Your task to perform on an android device: change your default location settings in chrome Image 0: 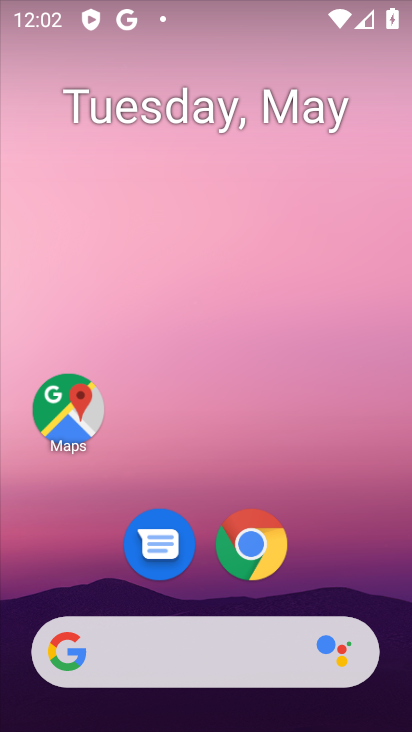
Step 0: click (241, 571)
Your task to perform on an android device: change your default location settings in chrome Image 1: 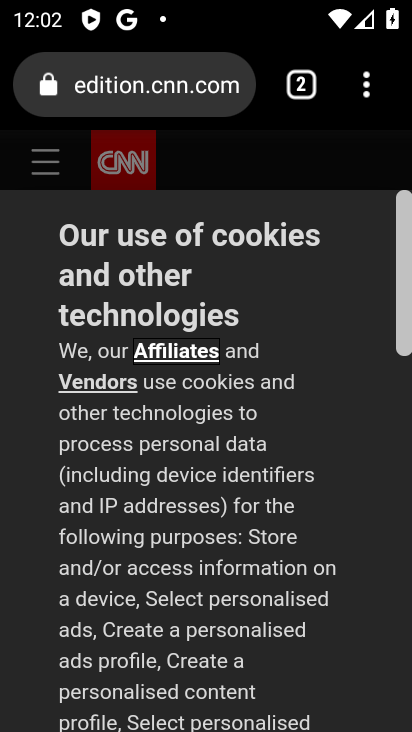
Step 1: drag from (359, 84) to (137, 607)
Your task to perform on an android device: change your default location settings in chrome Image 2: 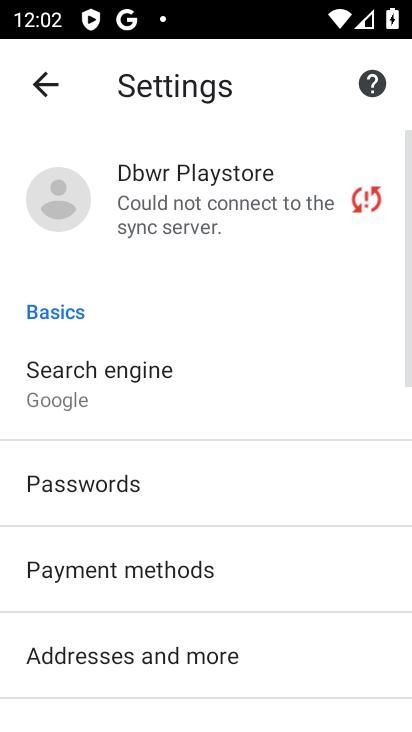
Step 2: drag from (133, 594) to (208, 318)
Your task to perform on an android device: change your default location settings in chrome Image 3: 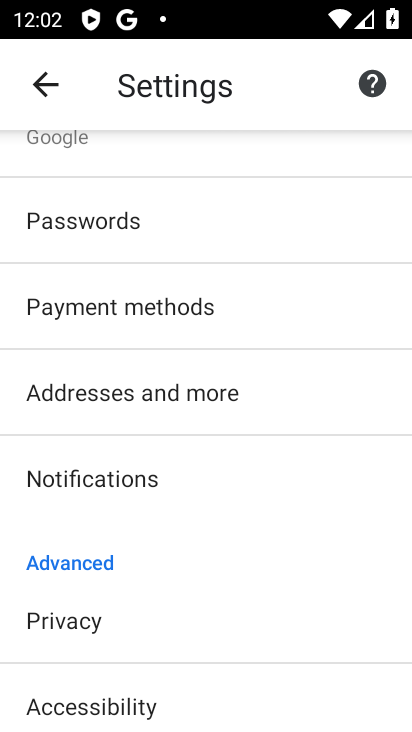
Step 3: drag from (160, 643) to (228, 388)
Your task to perform on an android device: change your default location settings in chrome Image 4: 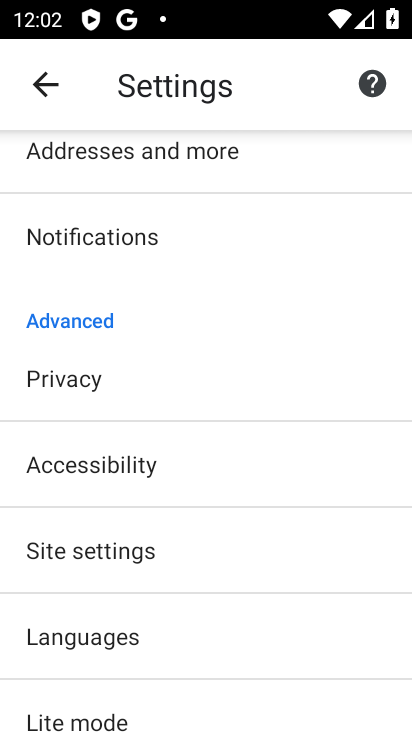
Step 4: click (93, 555)
Your task to perform on an android device: change your default location settings in chrome Image 5: 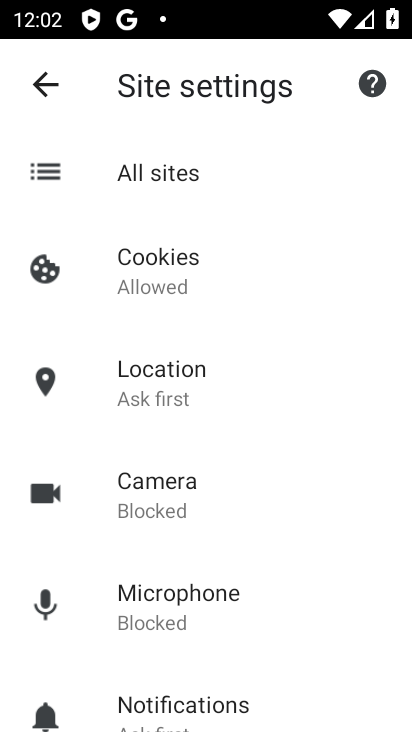
Step 5: click (191, 170)
Your task to perform on an android device: change your default location settings in chrome Image 6: 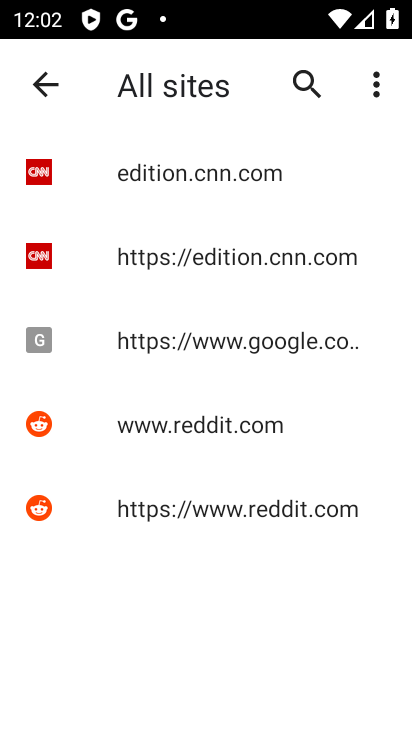
Step 6: click (36, 73)
Your task to perform on an android device: change your default location settings in chrome Image 7: 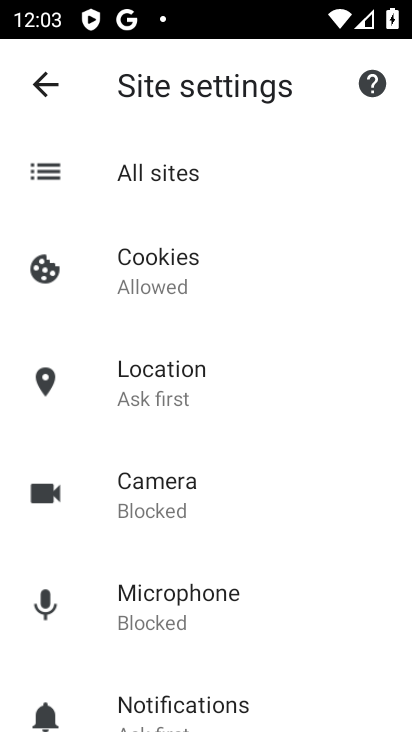
Step 7: drag from (210, 648) to (245, 462)
Your task to perform on an android device: change your default location settings in chrome Image 8: 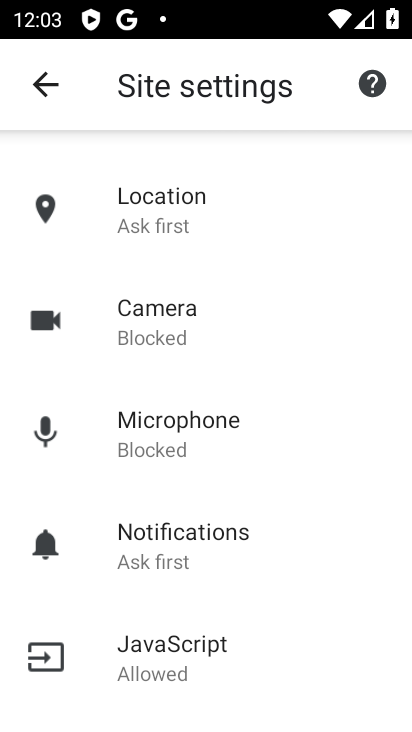
Step 8: click (185, 218)
Your task to perform on an android device: change your default location settings in chrome Image 9: 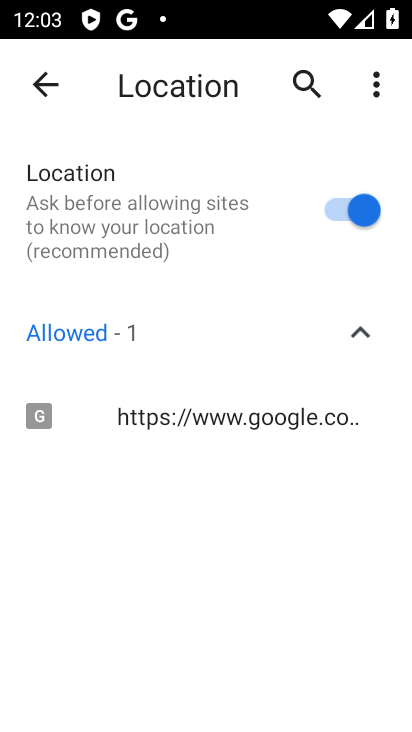
Step 9: click (334, 199)
Your task to perform on an android device: change your default location settings in chrome Image 10: 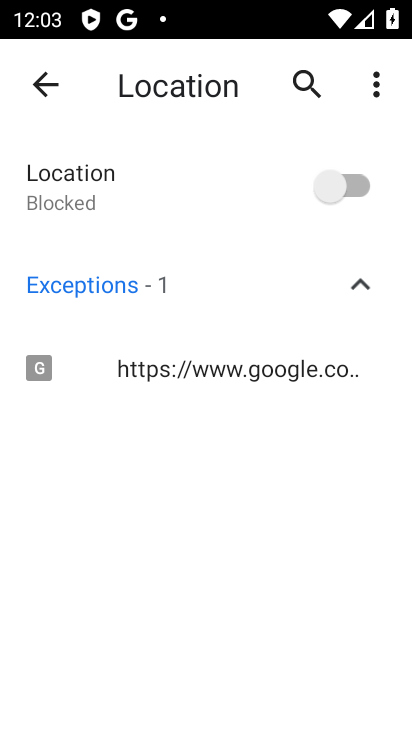
Step 10: task complete